Your task to perform on an android device: change the clock display to digital Image 0: 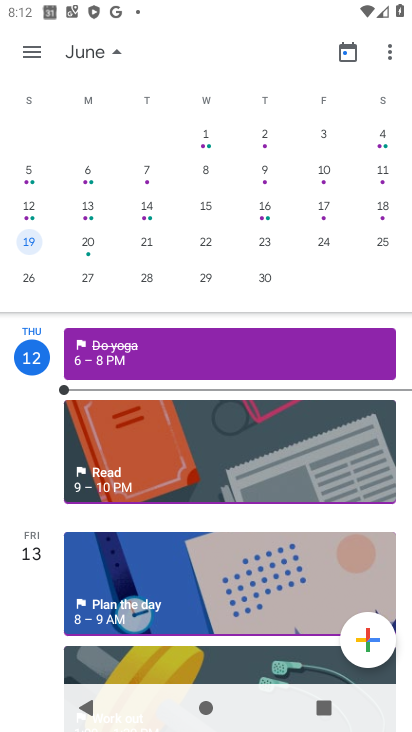
Step 0: press home button
Your task to perform on an android device: change the clock display to digital Image 1: 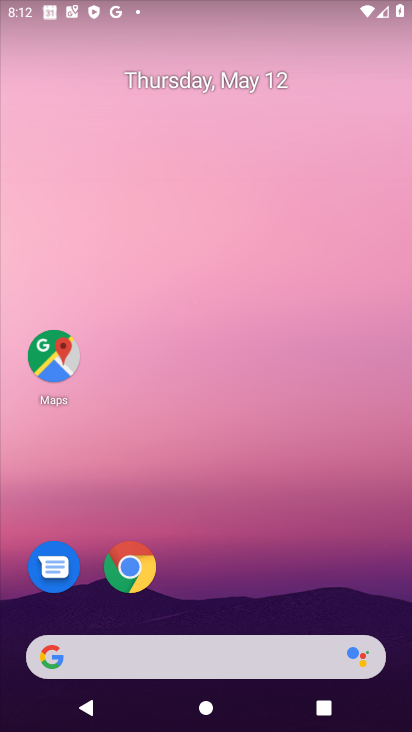
Step 1: drag from (210, 597) to (211, 167)
Your task to perform on an android device: change the clock display to digital Image 2: 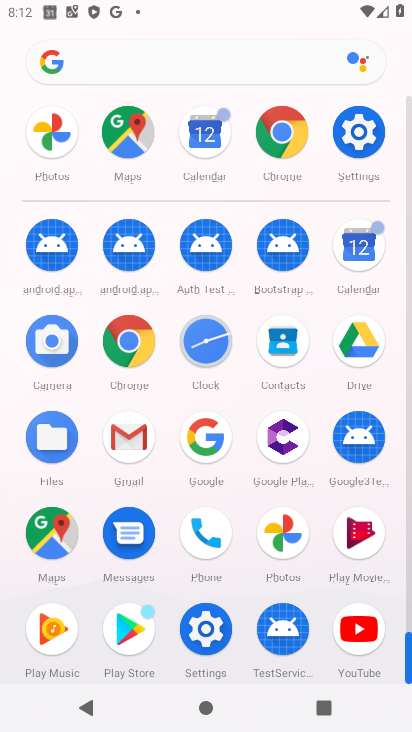
Step 2: click (213, 347)
Your task to perform on an android device: change the clock display to digital Image 3: 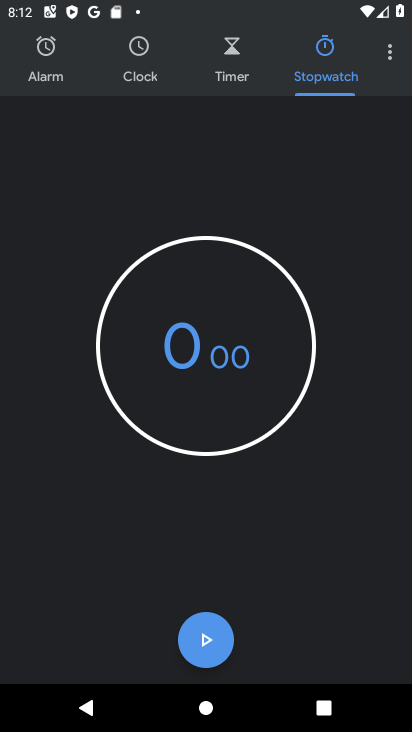
Step 3: click (383, 63)
Your task to perform on an android device: change the clock display to digital Image 4: 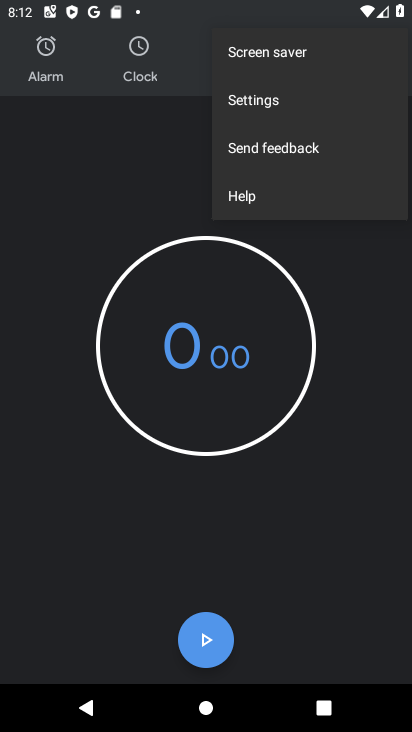
Step 4: click (292, 108)
Your task to perform on an android device: change the clock display to digital Image 5: 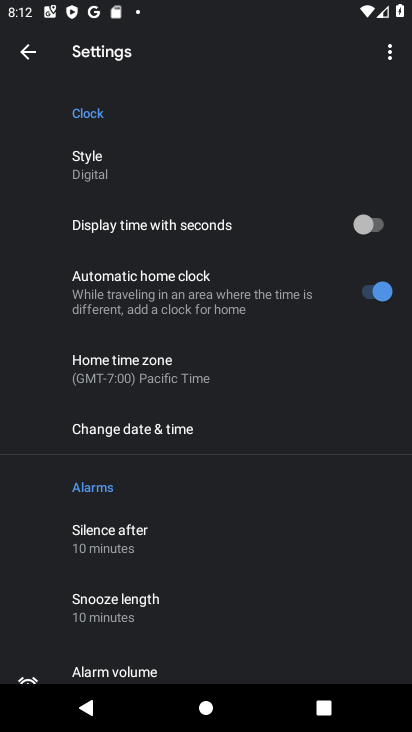
Step 5: task complete